Your task to perform on an android device: Go to wifi settings Image 0: 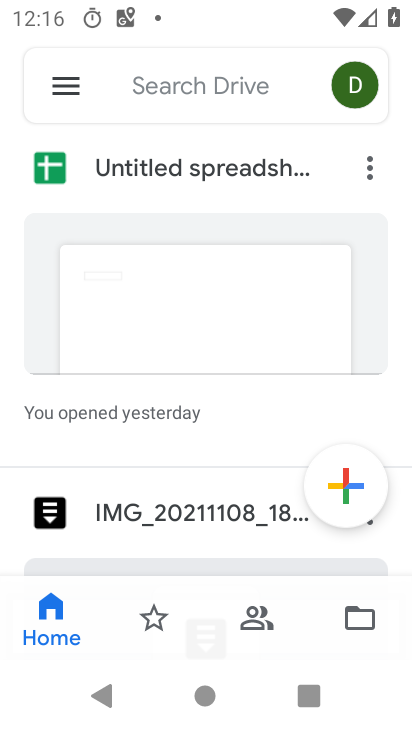
Step 0: press home button
Your task to perform on an android device: Go to wifi settings Image 1: 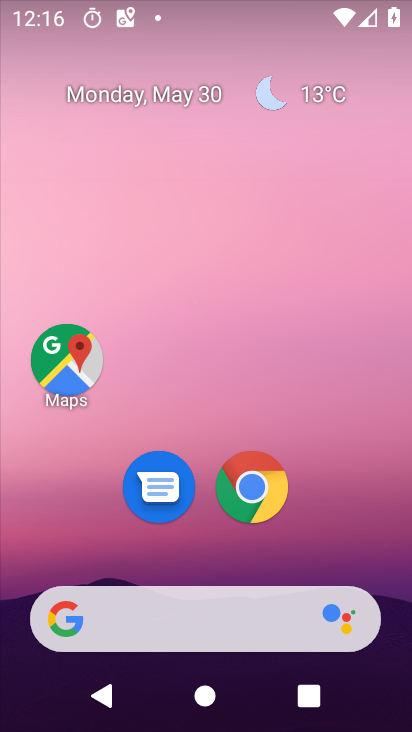
Step 1: drag from (394, 663) to (378, 144)
Your task to perform on an android device: Go to wifi settings Image 2: 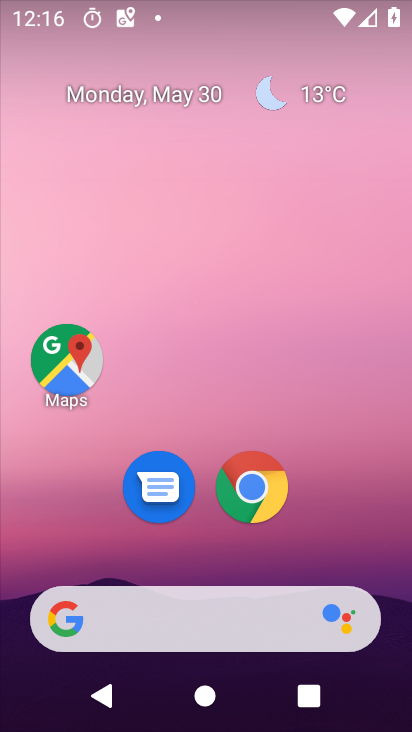
Step 2: drag from (388, 714) to (369, 101)
Your task to perform on an android device: Go to wifi settings Image 3: 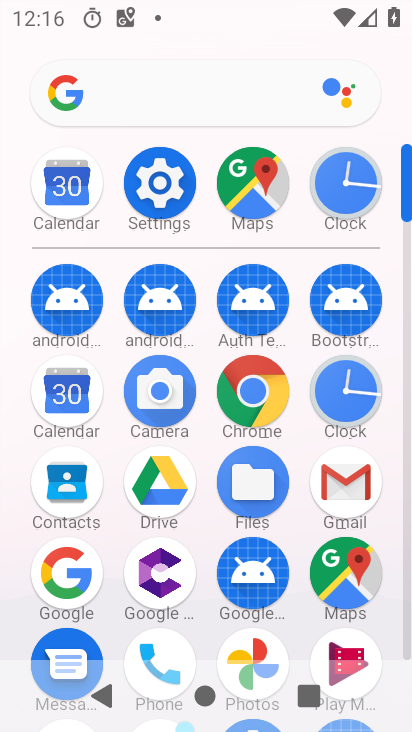
Step 3: click (160, 187)
Your task to perform on an android device: Go to wifi settings Image 4: 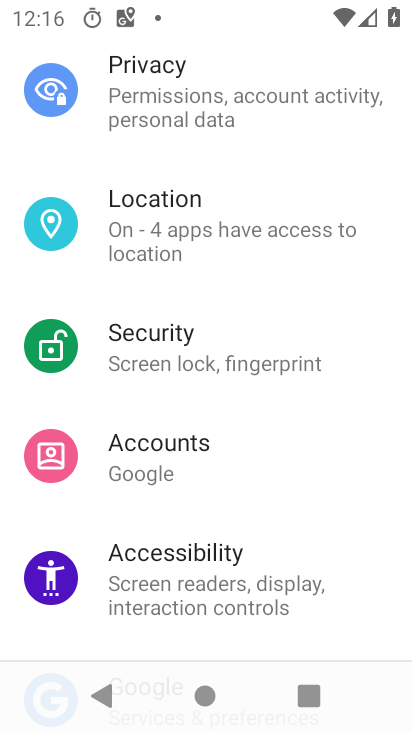
Step 4: drag from (262, 109) to (278, 543)
Your task to perform on an android device: Go to wifi settings Image 5: 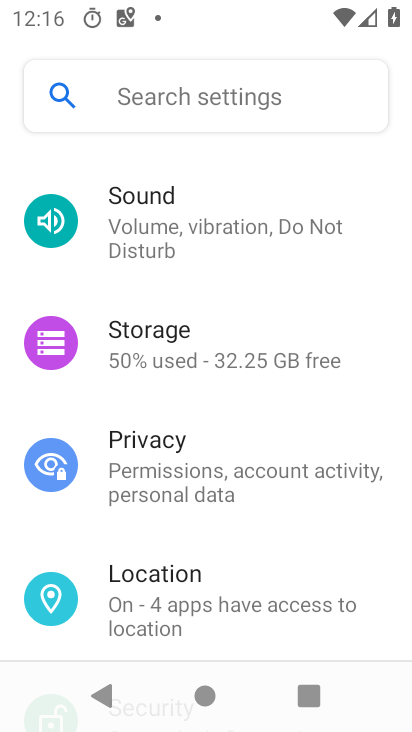
Step 5: drag from (289, 156) to (317, 634)
Your task to perform on an android device: Go to wifi settings Image 6: 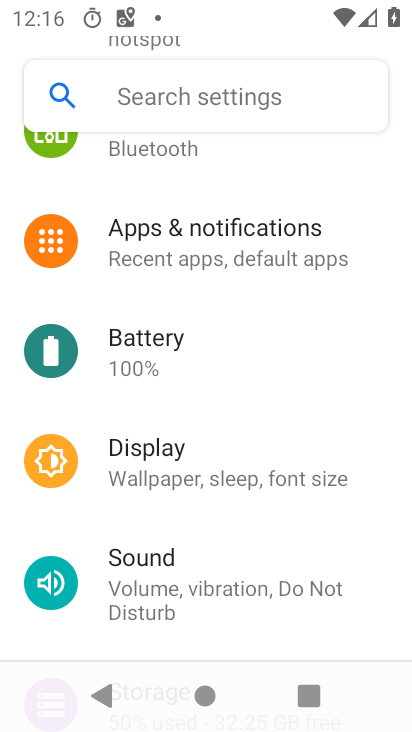
Step 6: drag from (281, 144) to (303, 569)
Your task to perform on an android device: Go to wifi settings Image 7: 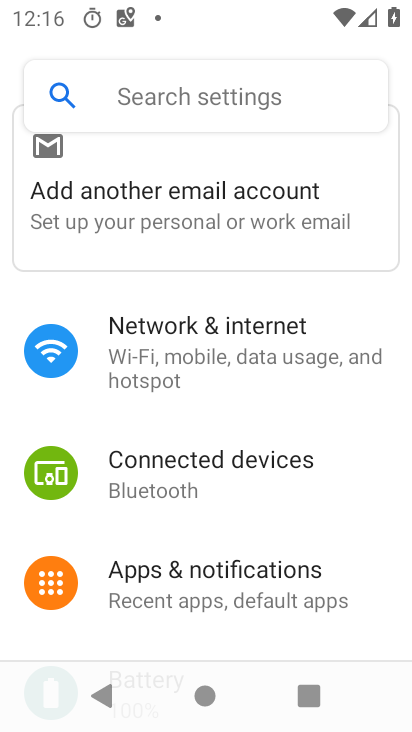
Step 7: click (196, 362)
Your task to perform on an android device: Go to wifi settings Image 8: 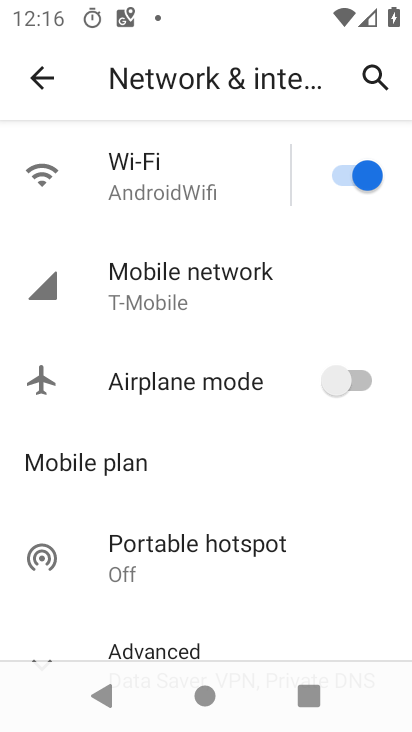
Step 8: click (170, 187)
Your task to perform on an android device: Go to wifi settings Image 9: 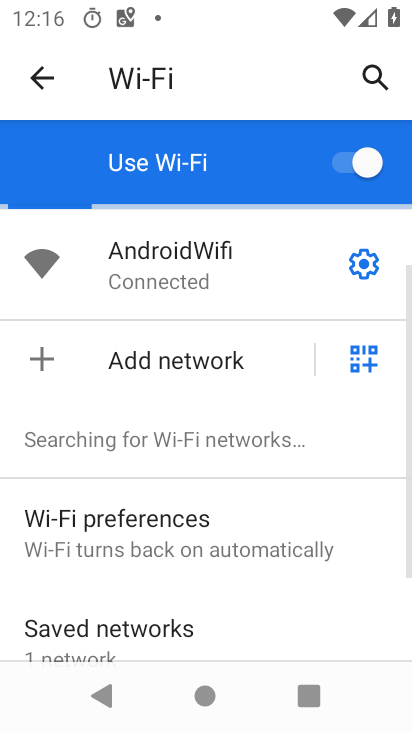
Step 9: click (351, 256)
Your task to perform on an android device: Go to wifi settings Image 10: 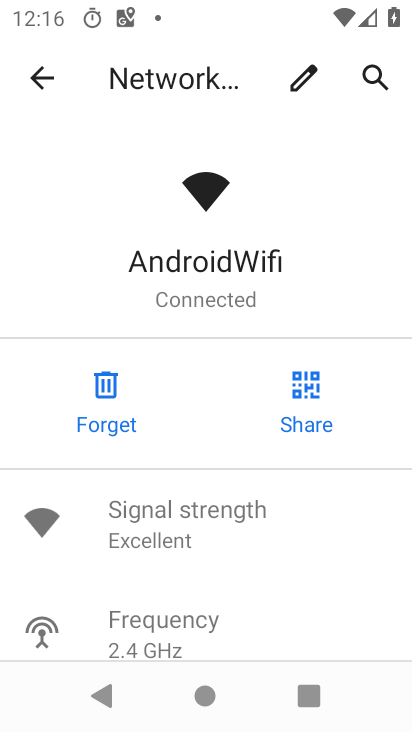
Step 10: task complete